Your task to perform on an android device: delete the emails in spam in the gmail app Image 0: 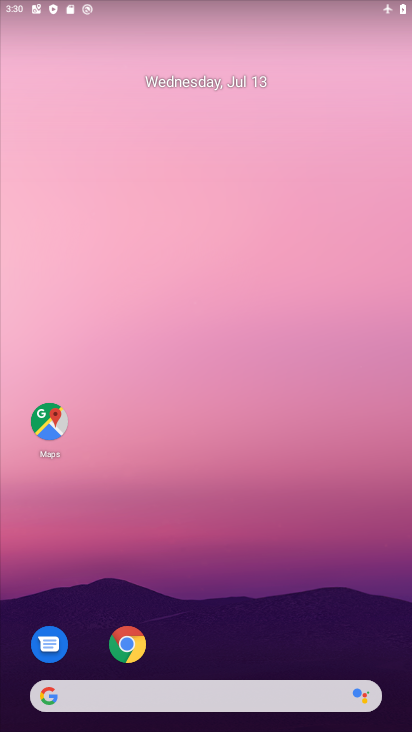
Step 0: drag from (286, 639) to (246, 236)
Your task to perform on an android device: delete the emails in spam in the gmail app Image 1: 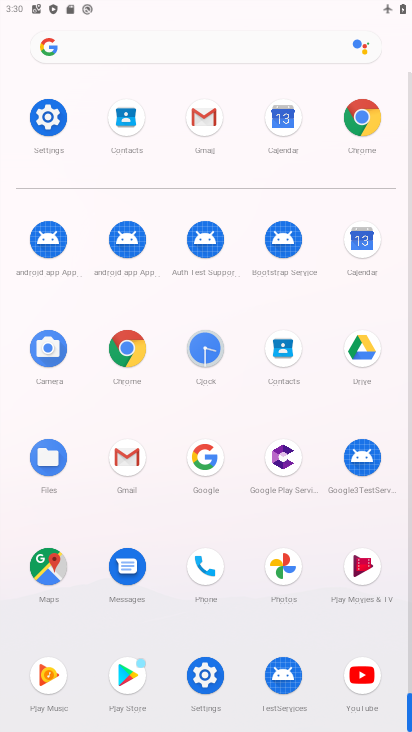
Step 1: click (194, 124)
Your task to perform on an android device: delete the emails in spam in the gmail app Image 2: 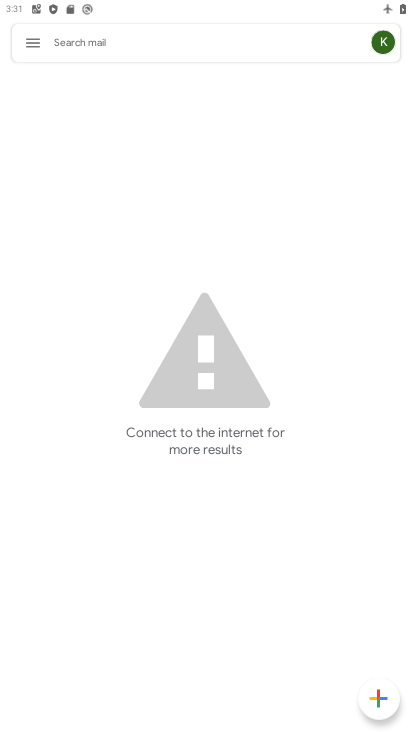
Step 2: task complete